Your task to perform on an android device: turn smart compose on in the gmail app Image 0: 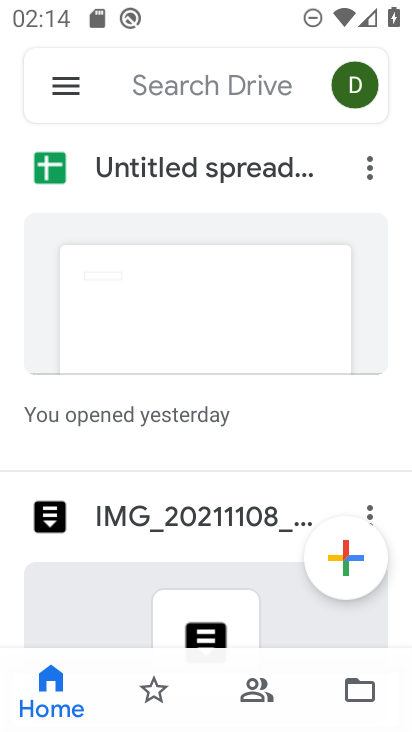
Step 0: press home button
Your task to perform on an android device: turn smart compose on in the gmail app Image 1: 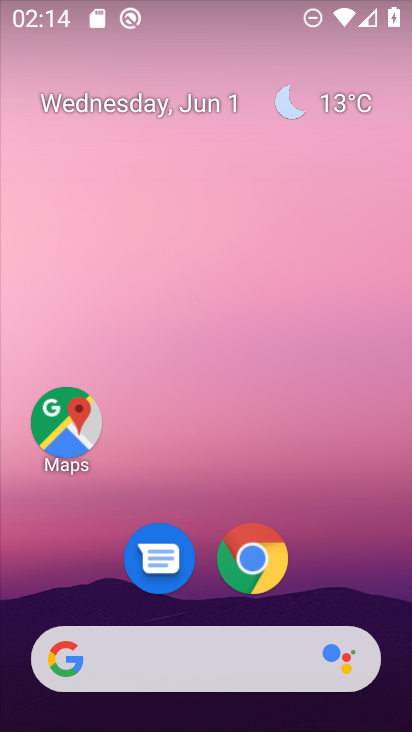
Step 1: drag from (393, 710) to (325, 162)
Your task to perform on an android device: turn smart compose on in the gmail app Image 2: 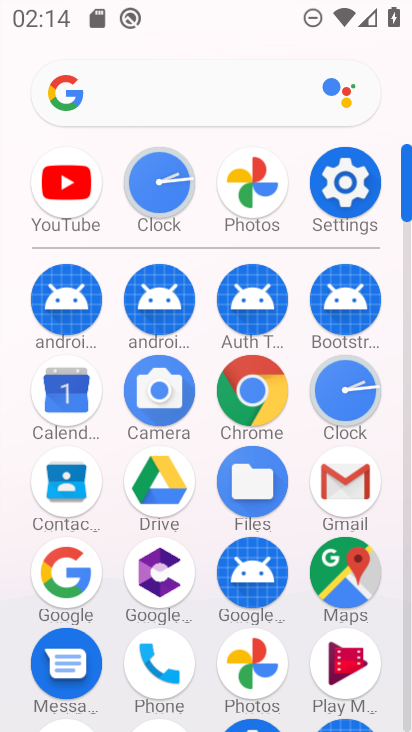
Step 2: click (338, 472)
Your task to perform on an android device: turn smart compose on in the gmail app Image 3: 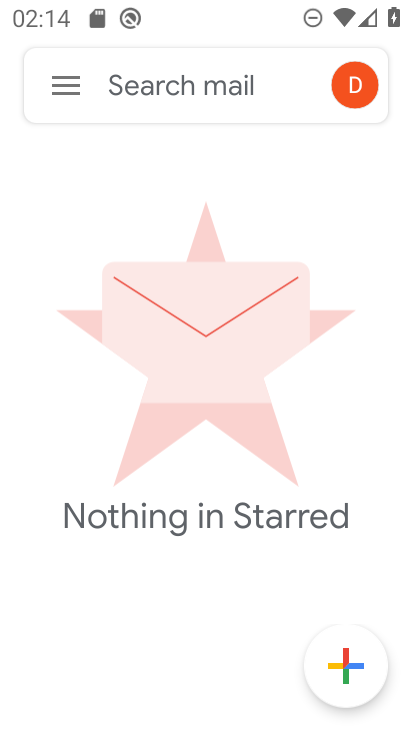
Step 3: click (56, 450)
Your task to perform on an android device: turn smart compose on in the gmail app Image 4: 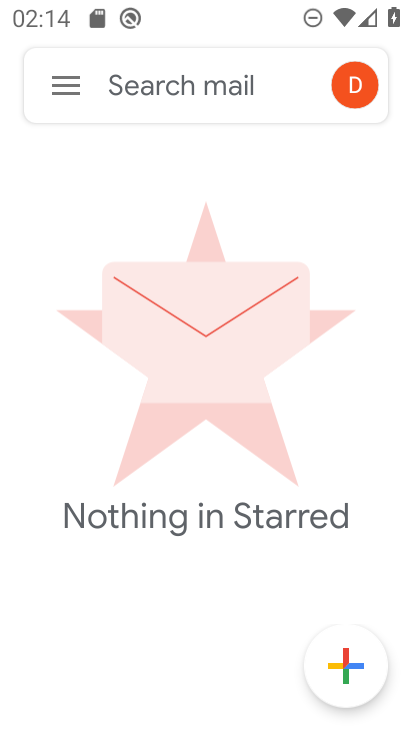
Step 4: click (64, 85)
Your task to perform on an android device: turn smart compose on in the gmail app Image 5: 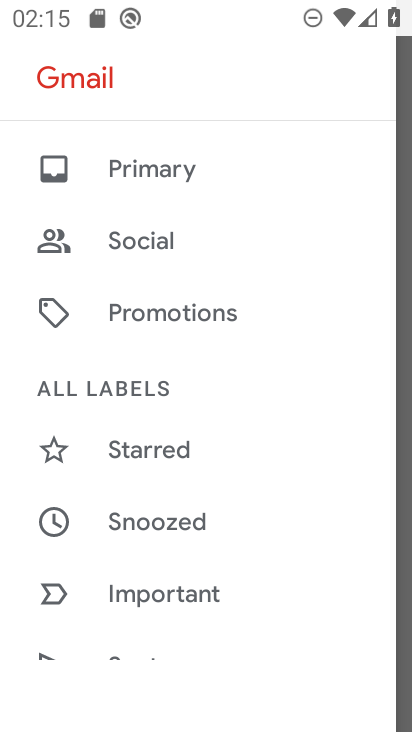
Step 5: drag from (262, 588) to (286, 215)
Your task to perform on an android device: turn smart compose on in the gmail app Image 6: 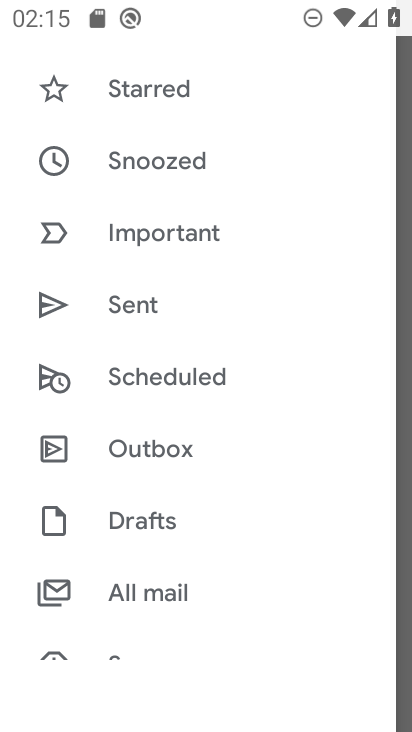
Step 6: drag from (240, 627) to (264, 263)
Your task to perform on an android device: turn smart compose on in the gmail app Image 7: 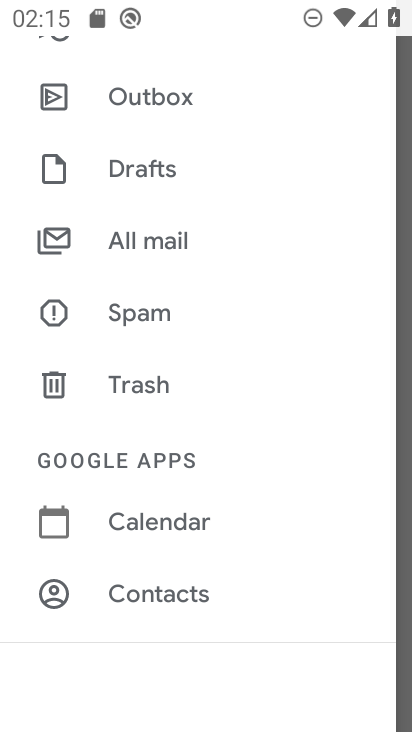
Step 7: drag from (290, 579) to (290, 293)
Your task to perform on an android device: turn smart compose on in the gmail app Image 8: 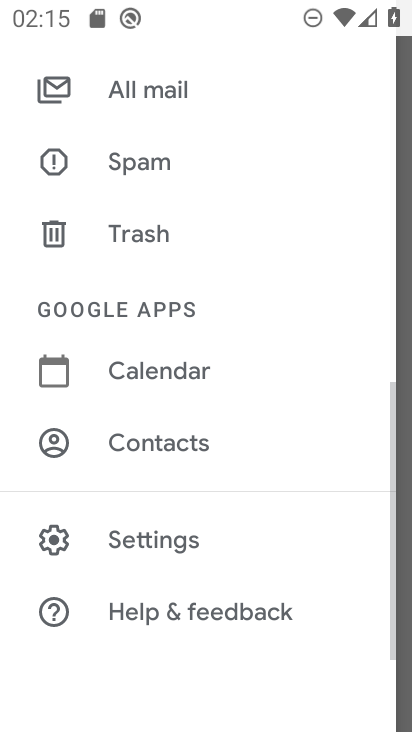
Step 8: click (110, 539)
Your task to perform on an android device: turn smart compose on in the gmail app Image 9: 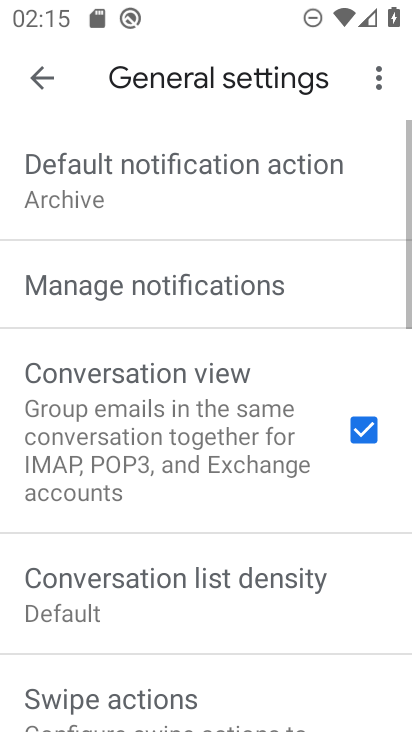
Step 9: drag from (251, 656) to (251, 304)
Your task to perform on an android device: turn smart compose on in the gmail app Image 10: 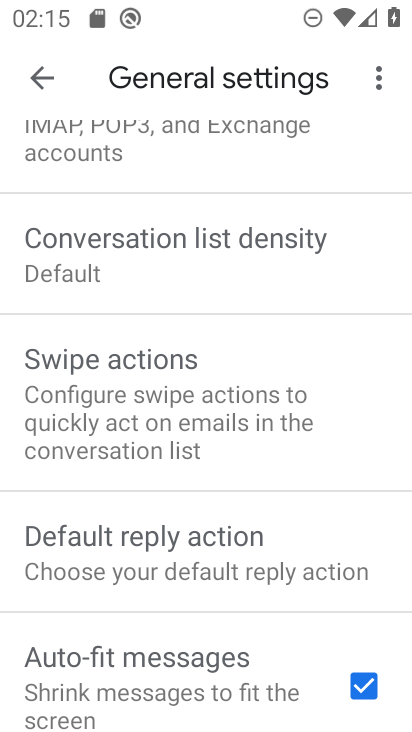
Step 10: click (35, 82)
Your task to perform on an android device: turn smart compose on in the gmail app Image 11: 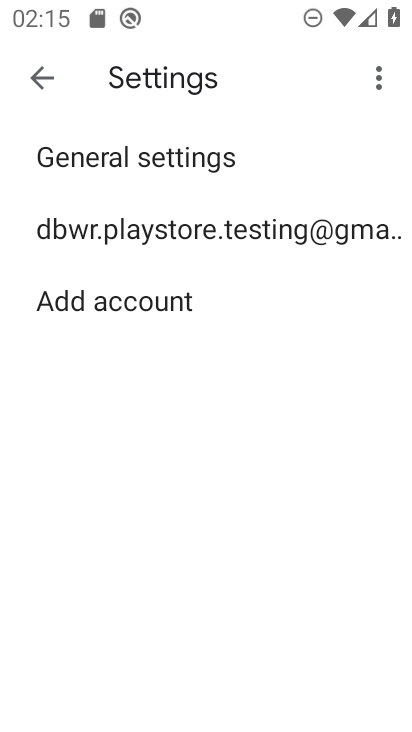
Step 11: click (156, 210)
Your task to perform on an android device: turn smart compose on in the gmail app Image 12: 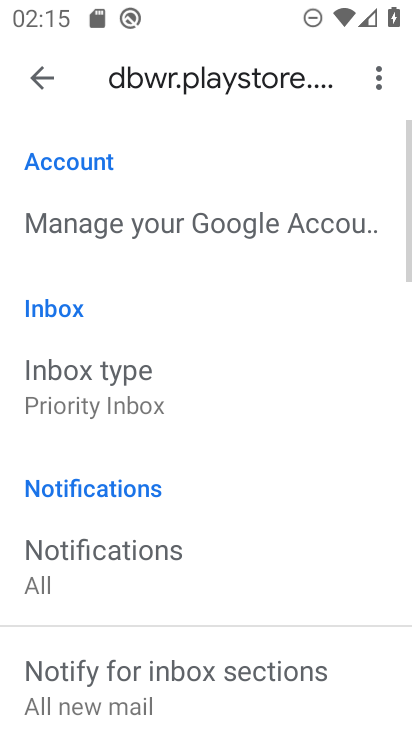
Step 12: task complete